Your task to perform on an android device: change the clock style Image 0: 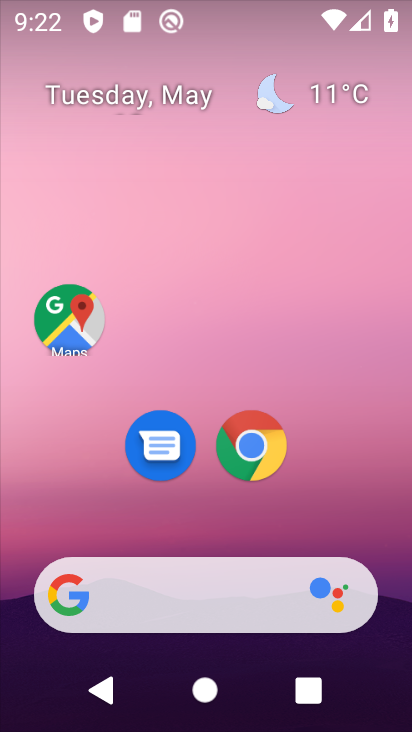
Step 0: drag from (173, 588) to (144, 2)
Your task to perform on an android device: change the clock style Image 1: 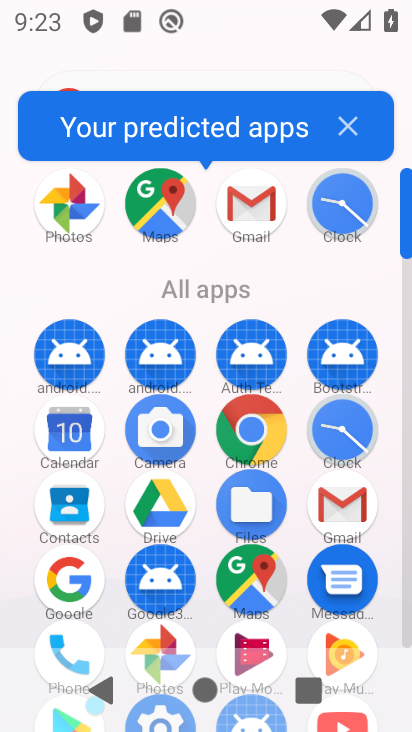
Step 1: click (331, 209)
Your task to perform on an android device: change the clock style Image 2: 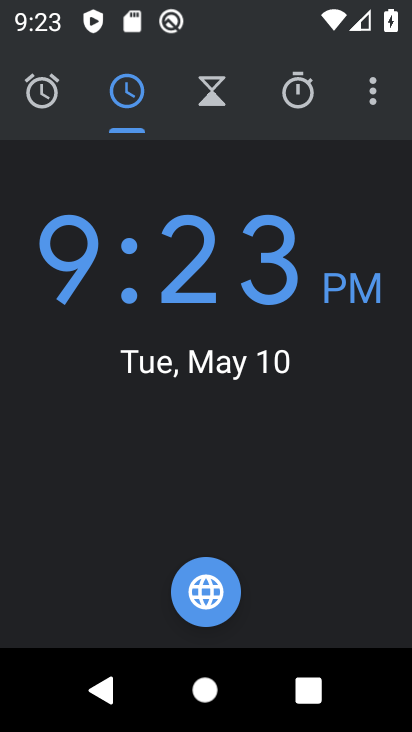
Step 2: click (372, 86)
Your task to perform on an android device: change the clock style Image 3: 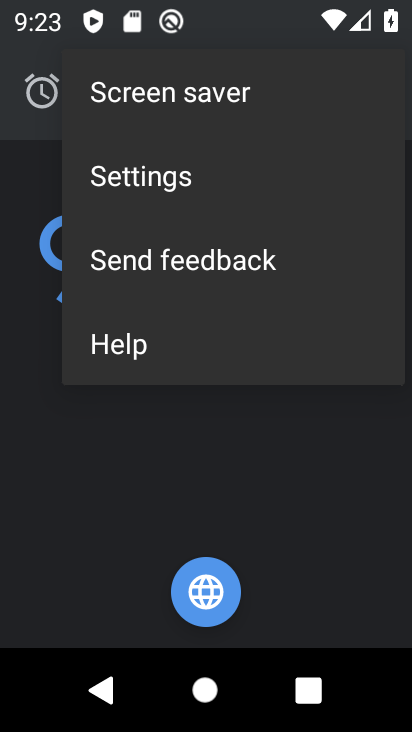
Step 3: click (146, 165)
Your task to perform on an android device: change the clock style Image 4: 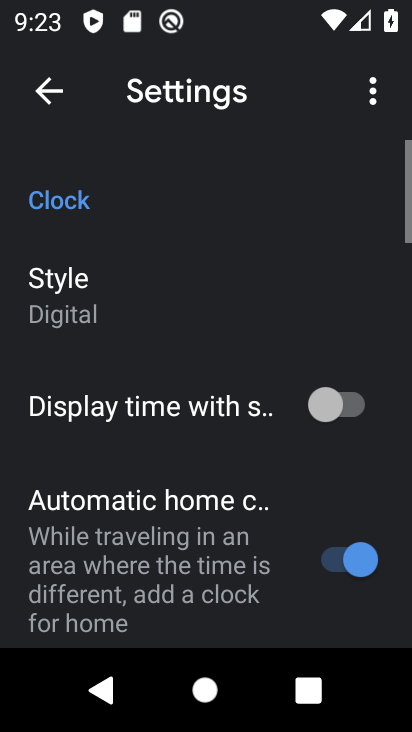
Step 4: click (150, 280)
Your task to perform on an android device: change the clock style Image 5: 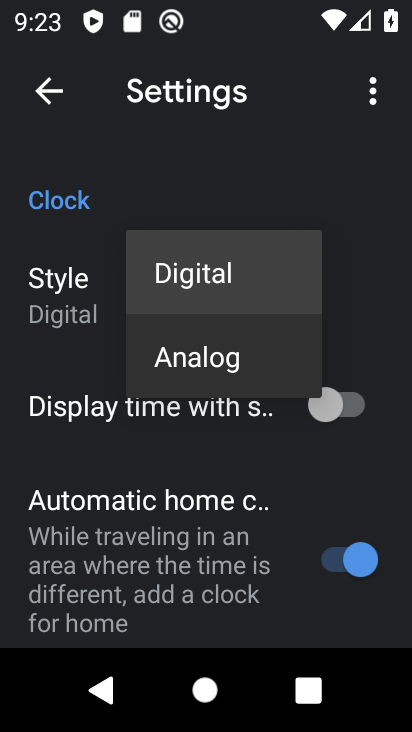
Step 5: click (175, 356)
Your task to perform on an android device: change the clock style Image 6: 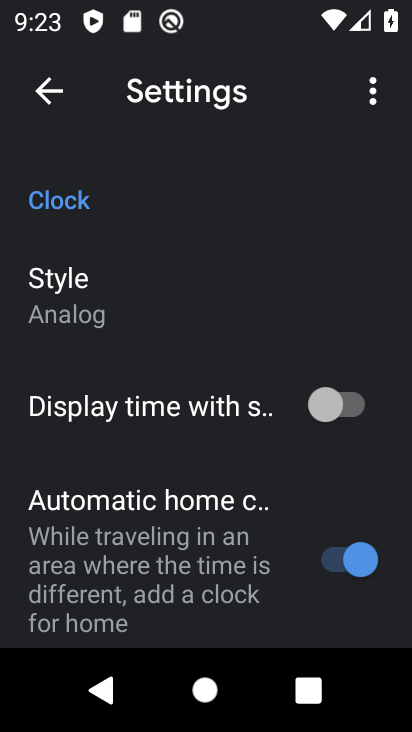
Step 6: task complete